Your task to perform on an android device: turn on wifi Image 0: 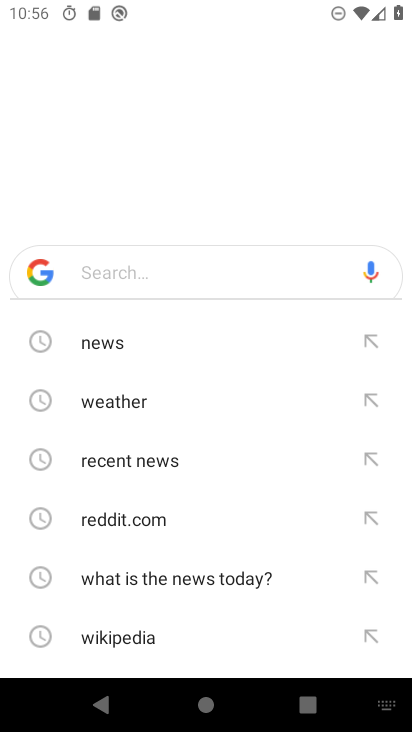
Step 0: drag from (183, 10) to (45, 317)
Your task to perform on an android device: turn on wifi Image 1: 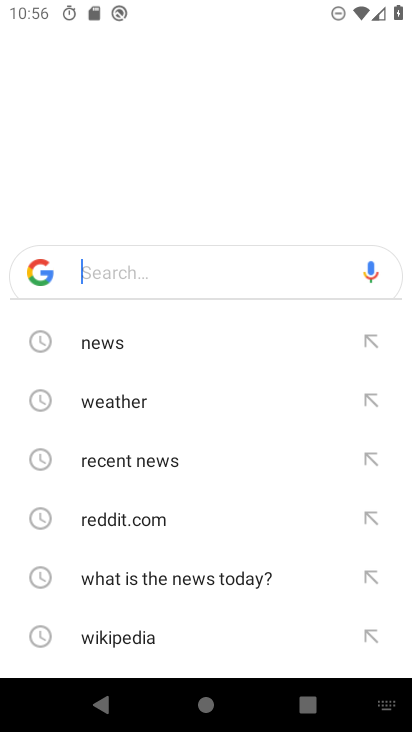
Step 1: task complete